Your task to perform on an android device: find snoozed emails in the gmail app Image 0: 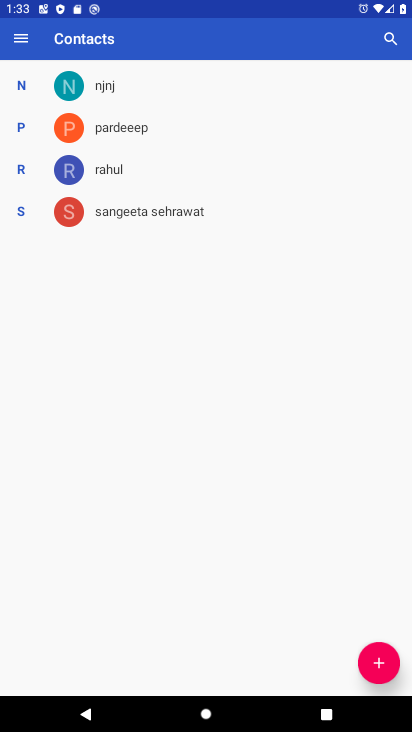
Step 0: press home button
Your task to perform on an android device: find snoozed emails in the gmail app Image 1: 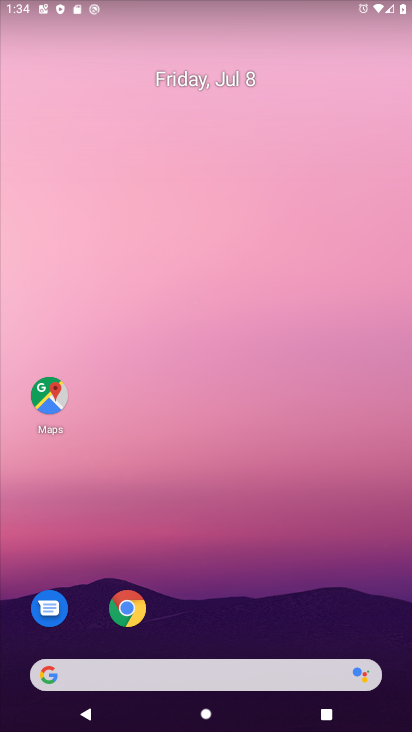
Step 1: drag from (209, 619) to (221, 59)
Your task to perform on an android device: find snoozed emails in the gmail app Image 2: 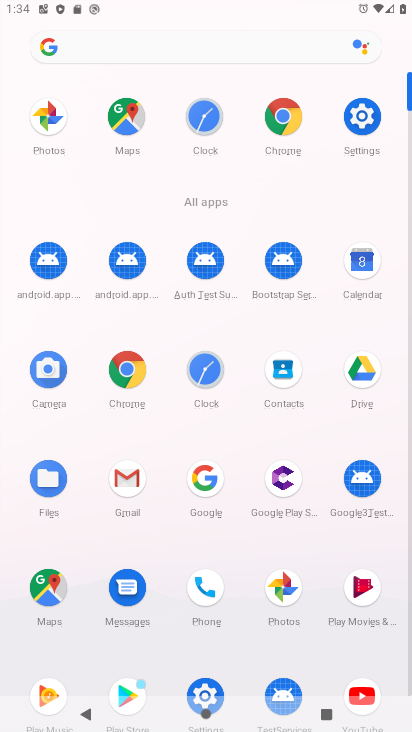
Step 2: click (128, 480)
Your task to perform on an android device: find snoozed emails in the gmail app Image 3: 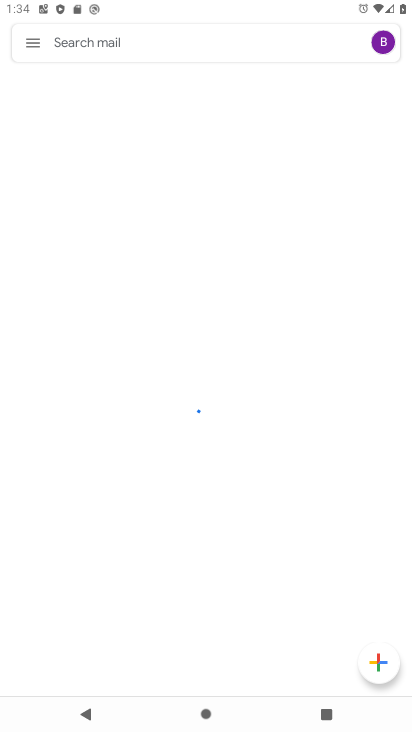
Step 3: click (36, 41)
Your task to perform on an android device: find snoozed emails in the gmail app Image 4: 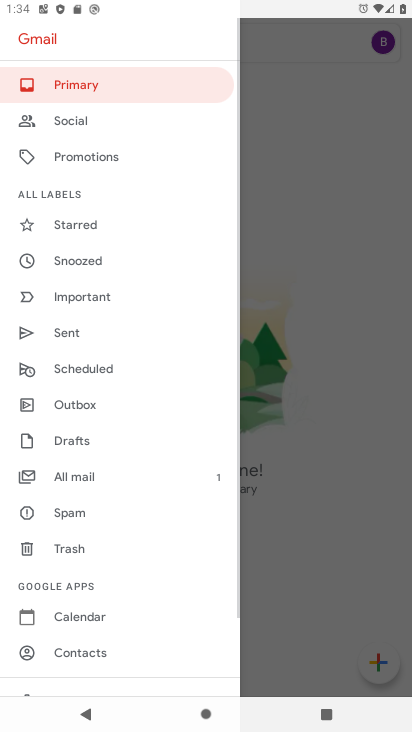
Step 4: click (71, 260)
Your task to perform on an android device: find snoozed emails in the gmail app Image 5: 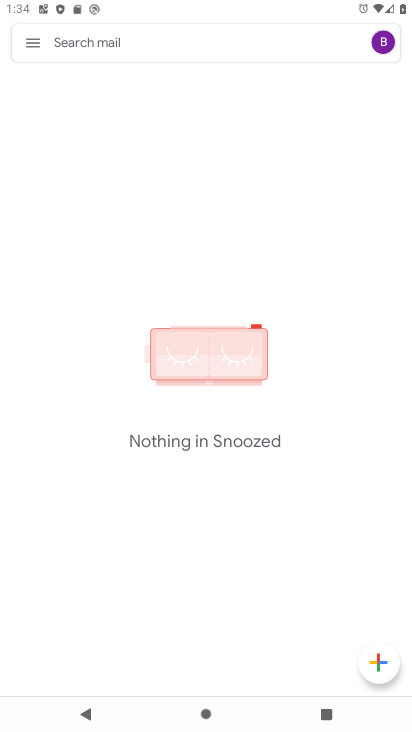
Step 5: task complete